Your task to perform on an android device: set an alarm Image 0: 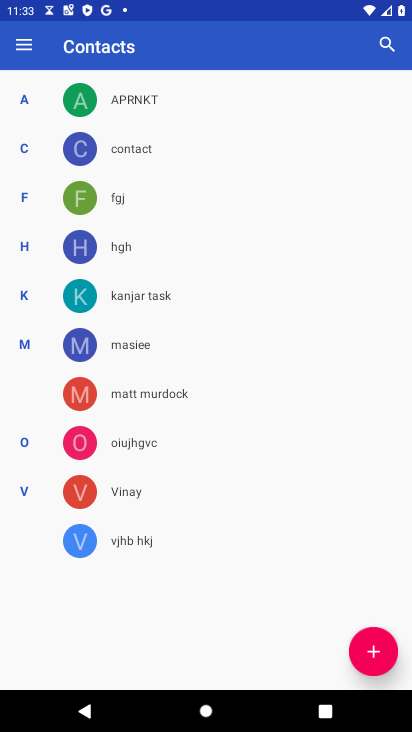
Step 0: press home button
Your task to perform on an android device: set an alarm Image 1: 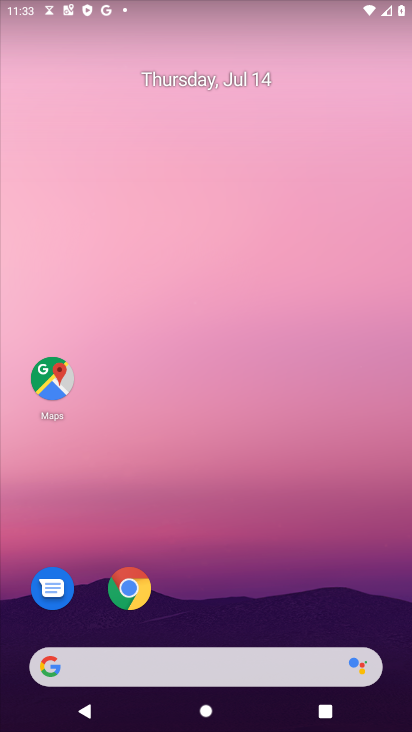
Step 1: drag from (172, 665) to (352, 63)
Your task to perform on an android device: set an alarm Image 2: 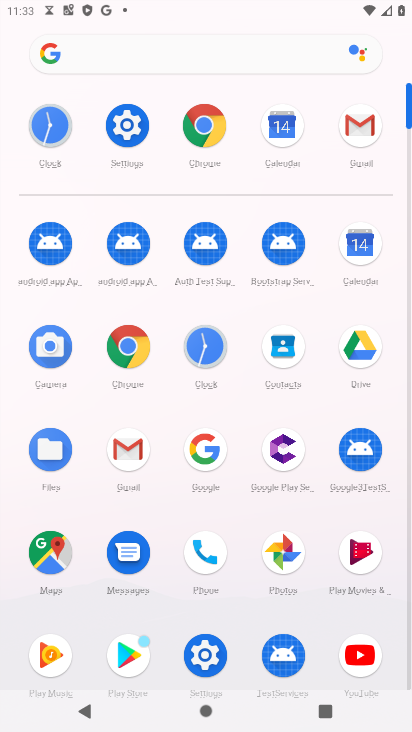
Step 2: click (52, 131)
Your task to perform on an android device: set an alarm Image 3: 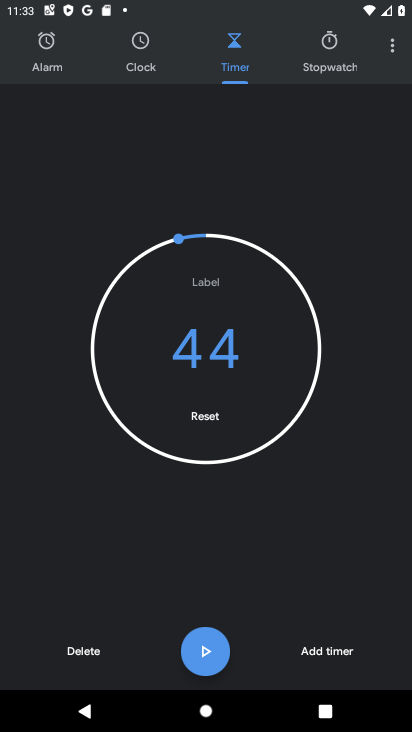
Step 3: click (44, 47)
Your task to perform on an android device: set an alarm Image 4: 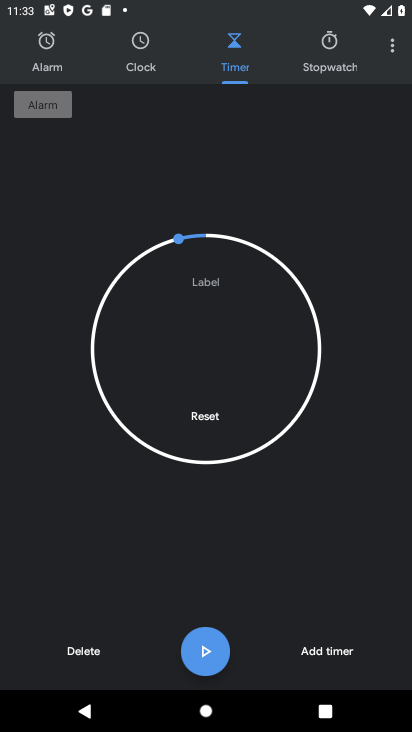
Step 4: click (57, 70)
Your task to perform on an android device: set an alarm Image 5: 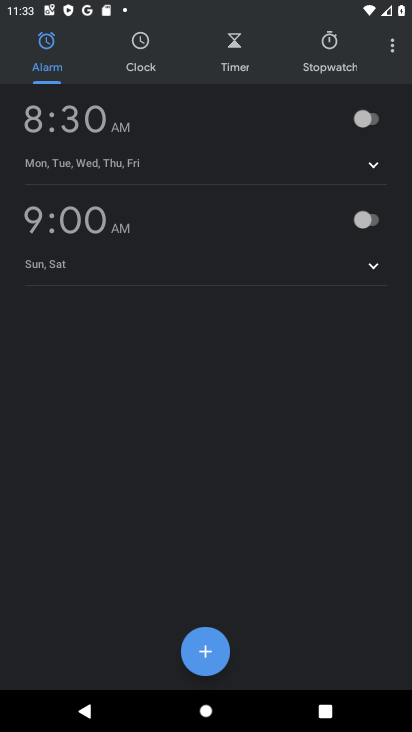
Step 5: click (371, 125)
Your task to perform on an android device: set an alarm Image 6: 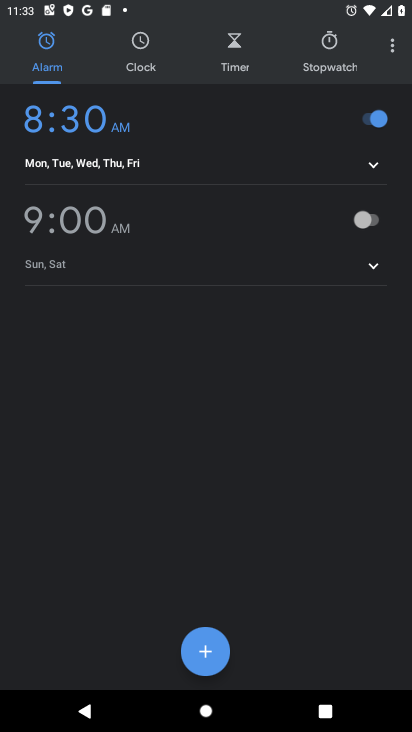
Step 6: task complete